Your task to perform on an android device: Open Maps and search for coffee Image 0: 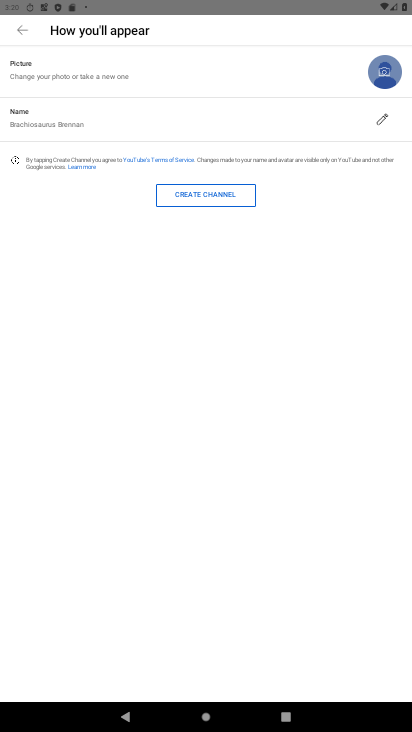
Step 0: press home button
Your task to perform on an android device: Open Maps and search for coffee Image 1: 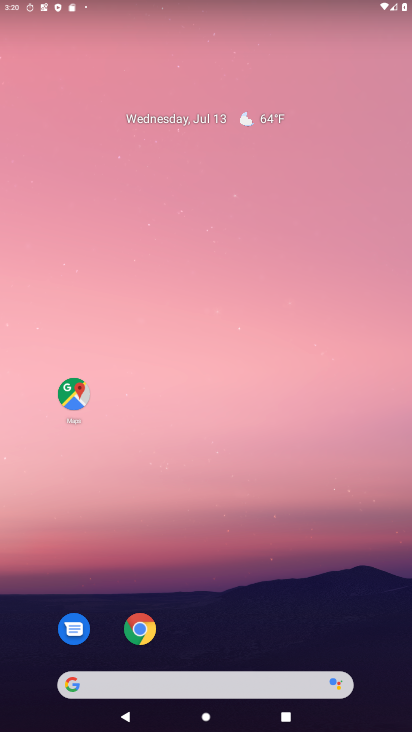
Step 1: drag from (341, 677) to (353, 14)
Your task to perform on an android device: Open Maps and search for coffee Image 2: 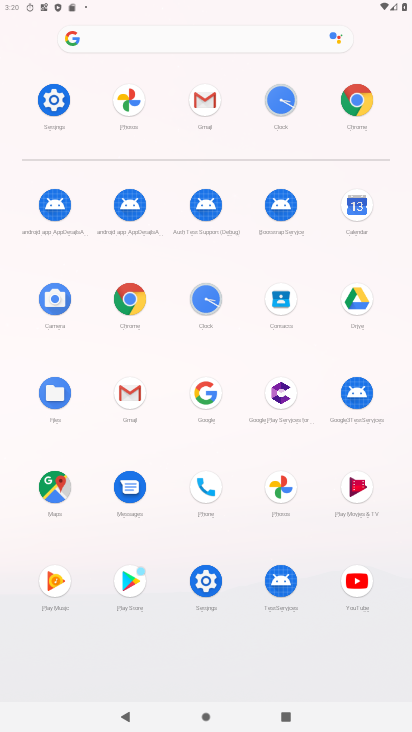
Step 2: click (58, 491)
Your task to perform on an android device: Open Maps and search for coffee Image 3: 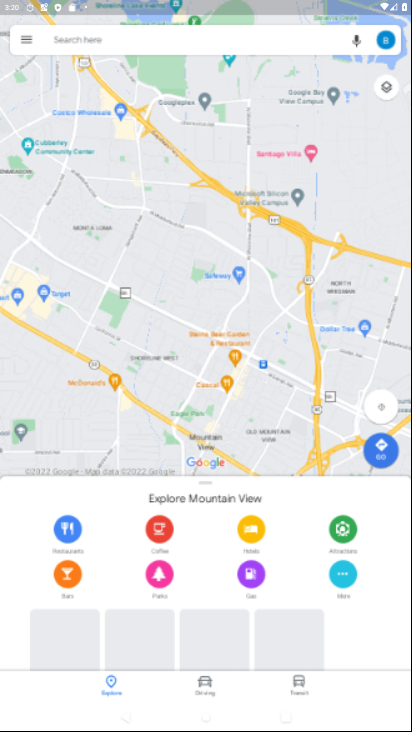
Step 3: click (235, 46)
Your task to perform on an android device: Open Maps and search for coffee Image 4: 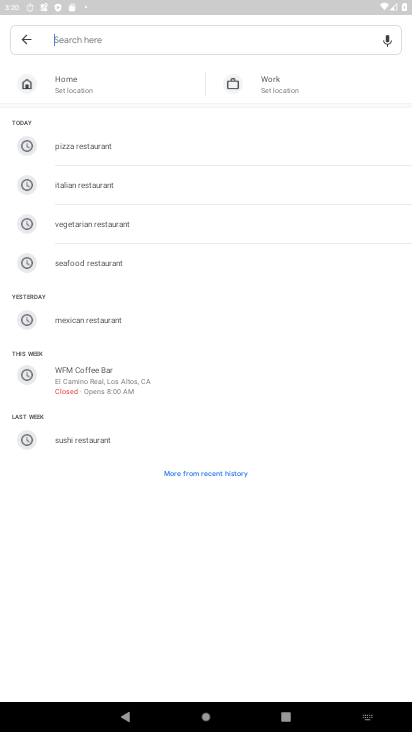
Step 4: type "coffee"
Your task to perform on an android device: Open Maps and search for coffee Image 5: 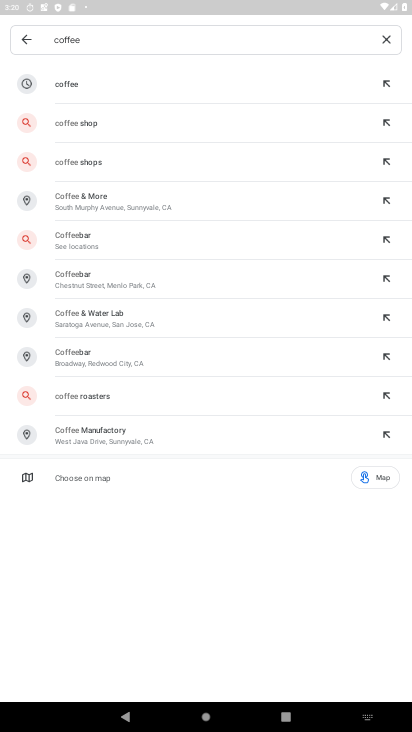
Step 5: click (108, 96)
Your task to perform on an android device: Open Maps and search for coffee Image 6: 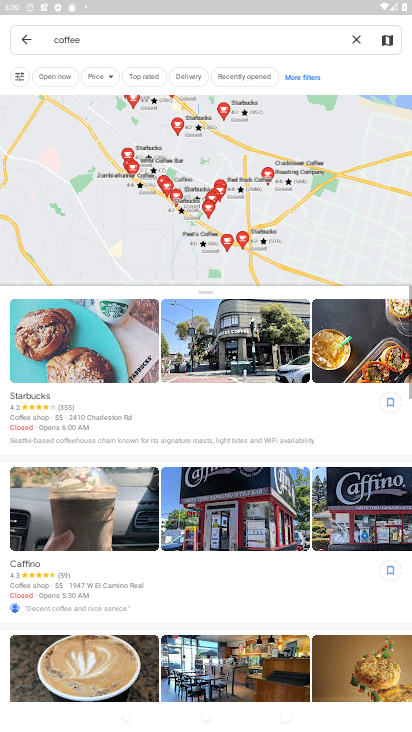
Step 6: task complete